Your task to perform on an android device: Open Youtube and go to the subscriptions tab Image 0: 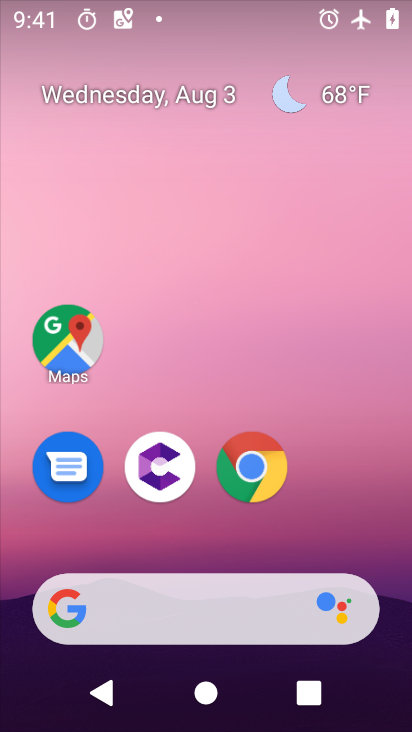
Step 0: drag from (328, 491) to (309, 70)
Your task to perform on an android device: Open Youtube and go to the subscriptions tab Image 1: 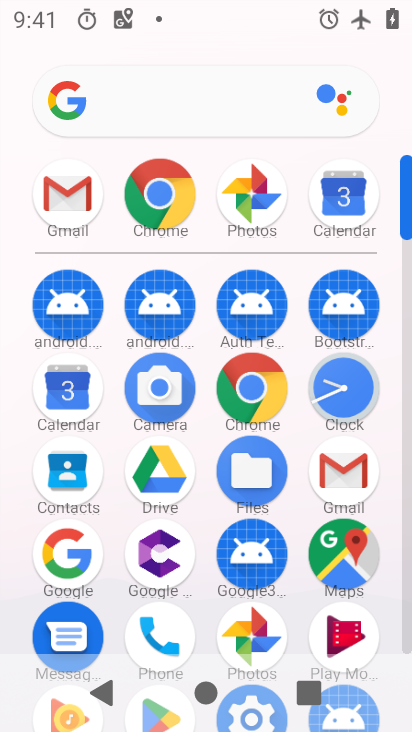
Step 1: drag from (295, 513) to (303, 226)
Your task to perform on an android device: Open Youtube and go to the subscriptions tab Image 2: 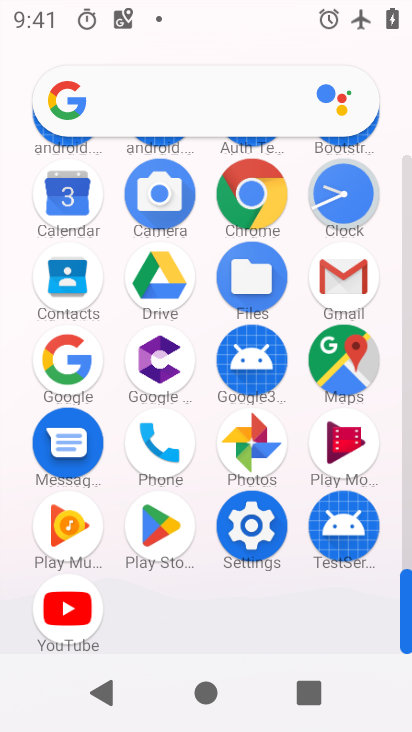
Step 2: click (69, 608)
Your task to perform on an android device: Open Youtube and go to the subscriptions tab Image 3: 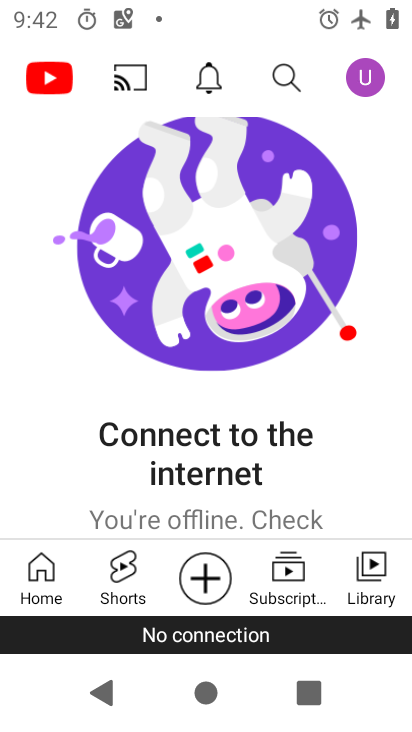
Step 3: click (292, 580)
Your task to perform on an android device: Open Youtube and go to the subscriptions tab Image 4: 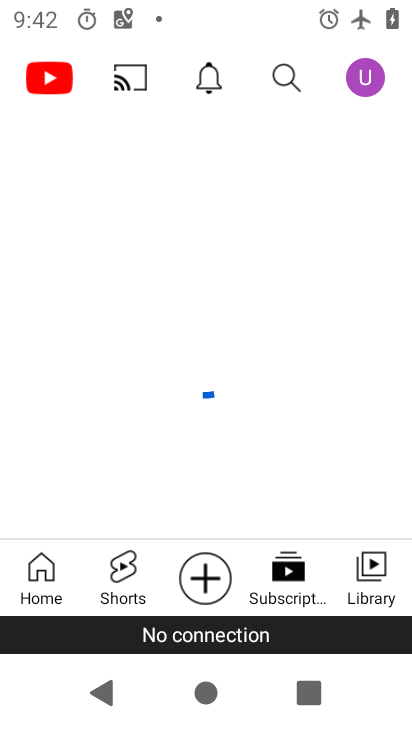
Step 4: task complete